Your task to perform on an android device: toggle notification dots Image 0: 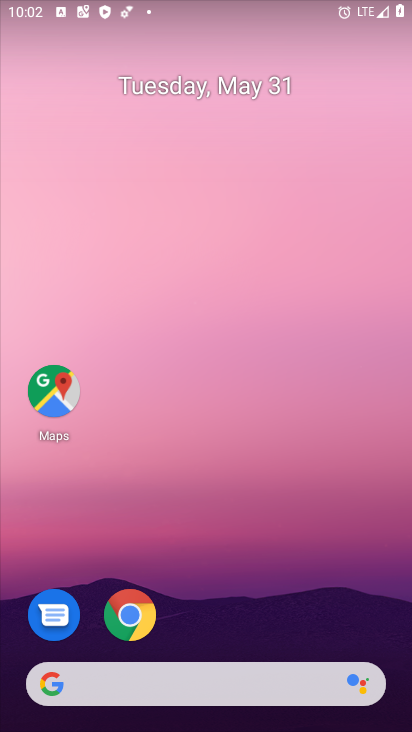
Step 0: drag from (383, 626) to (330, 113)
Your task to perform on an android device: toggle notification dots Image 1: 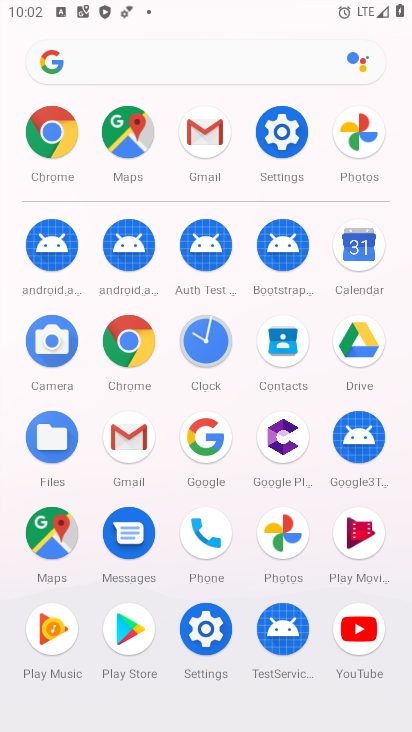
Step 1: click (206, 629)
Your task to perform on an android device: toggle notification dots Image 2: 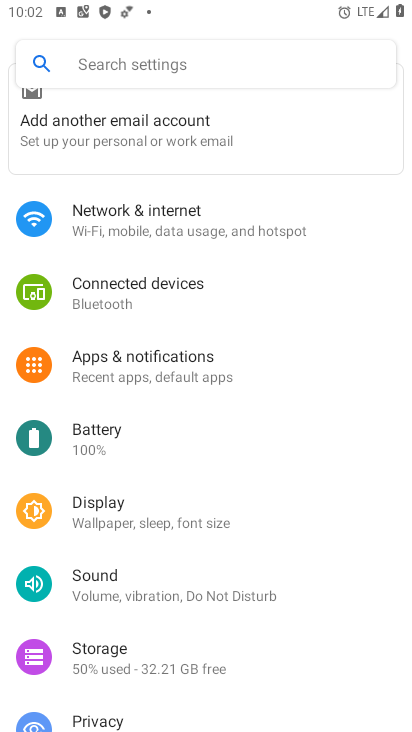
Step 2: click (154, 377)
Your task to perform on an android device: toggle notification dots Image 3: 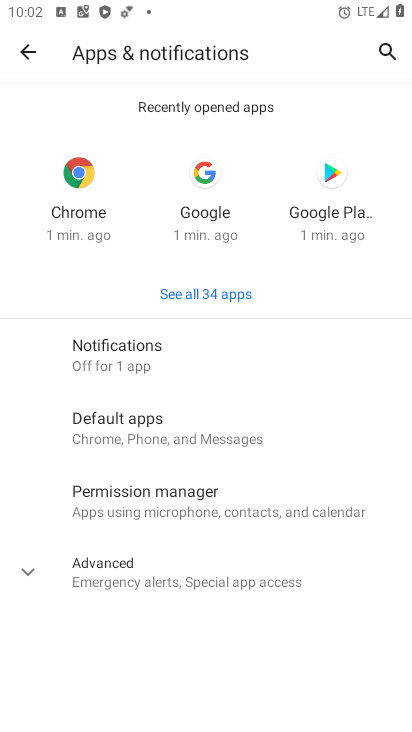
Step 3: click (124, 359)
Your task to perform on an android device: toggle notification dots Image 4: 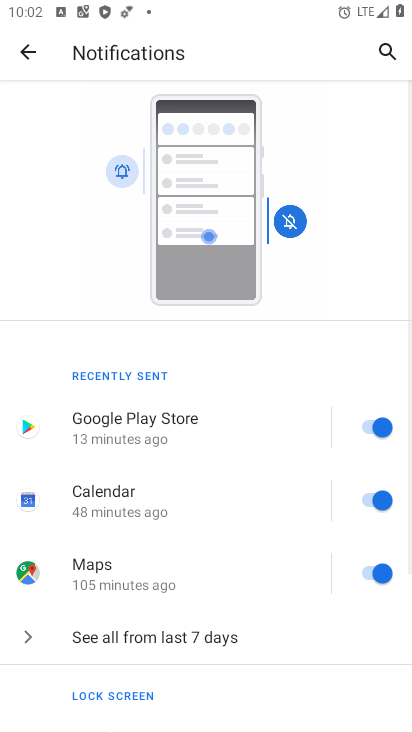
Step 4: drag from (332, 682) to (314, 246)
Your task to perform on an android device: toggle notification dots Image 5: 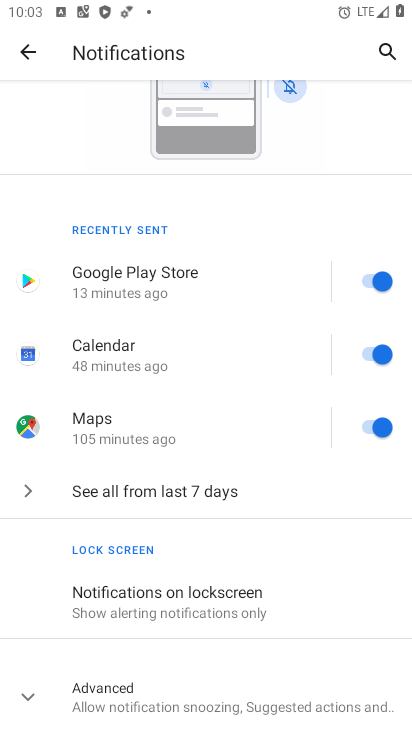
Step 5: click (52, 700)
Your task to perform on an android device: toggle notification dots Image 6: 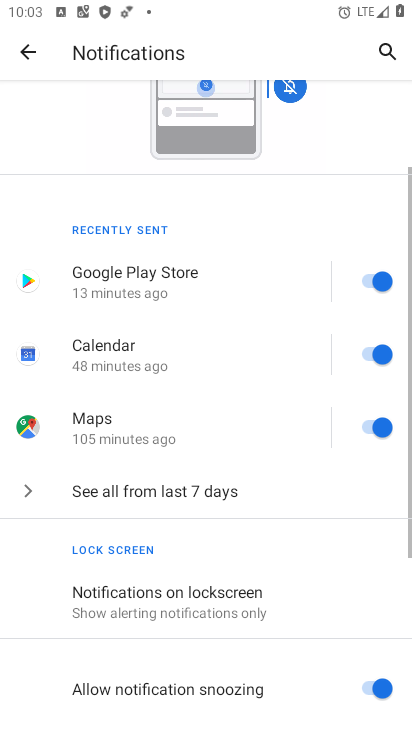
Step 6: drag from (242, 645) to (225, 277)
Your task to perform on an android device: toggle notification dots Image 7: 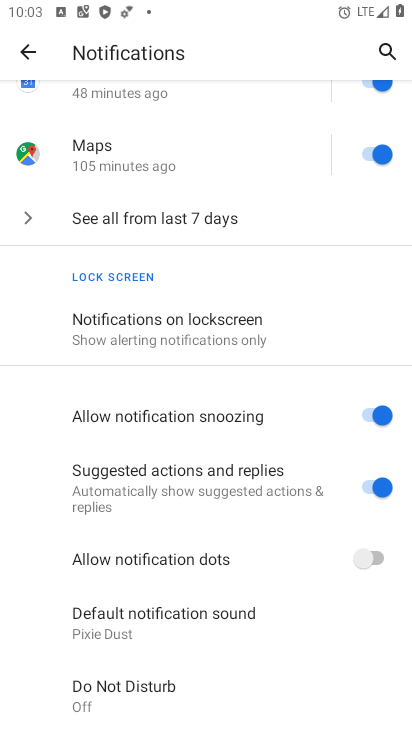
Step 7: click (379, 558)
Your task to perform on an android device: toggle notification dots Image 8: 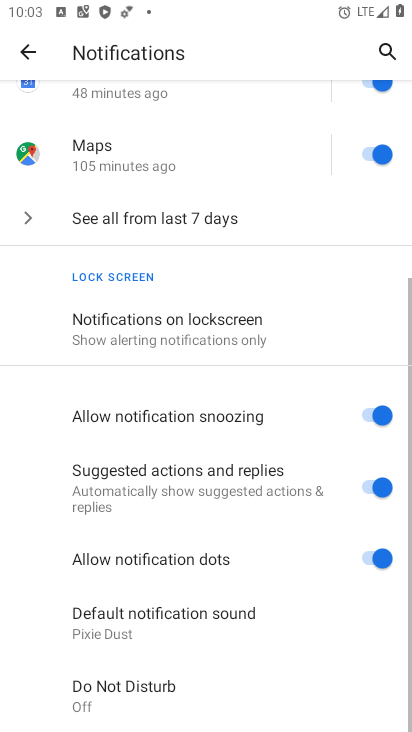
Step 8: task complete